Your task to perform on an android device: Go to notification settings Image 0: 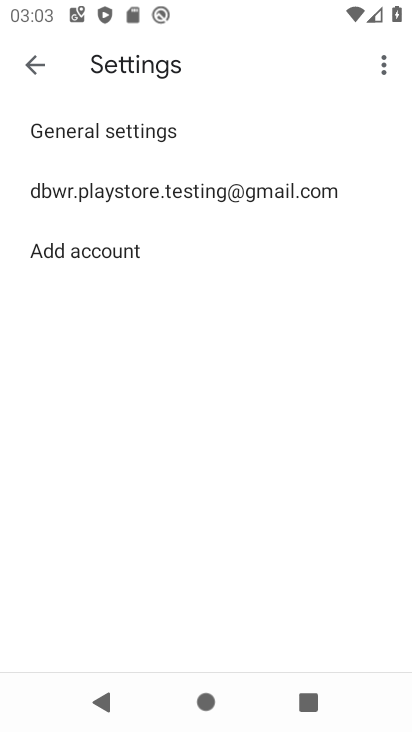
Step 0: press home button
Your task to perform on an android device: Go to notification settings Image 1: 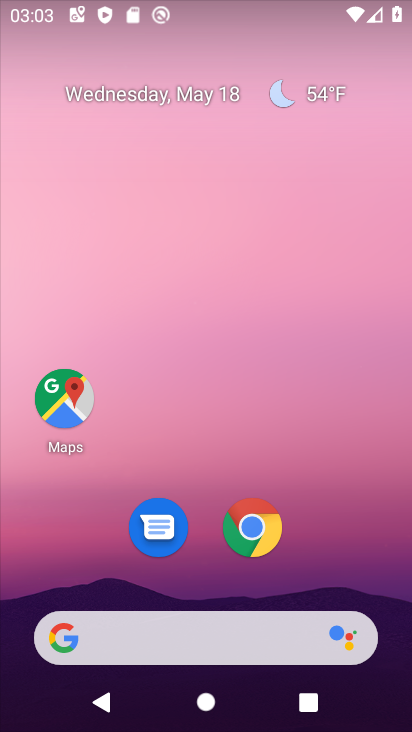
Step 1: drag from (216, 589) to (179, 0)
Your task to perform on an android device: Go to notification settings Image 2: 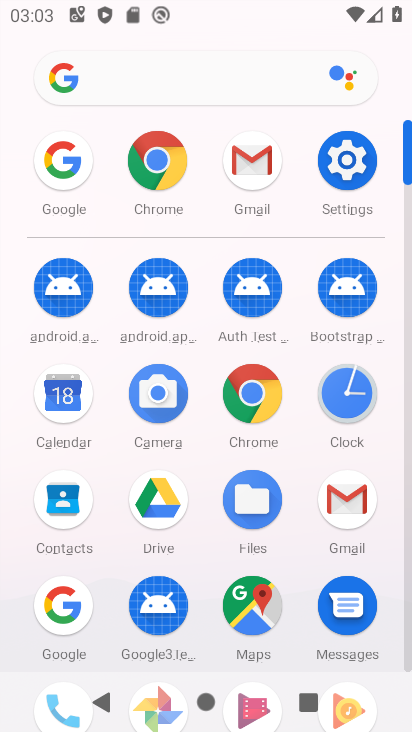
Step 2: click (361, 156)
Your task to perform on an android device: Go to notification settings Image 3: 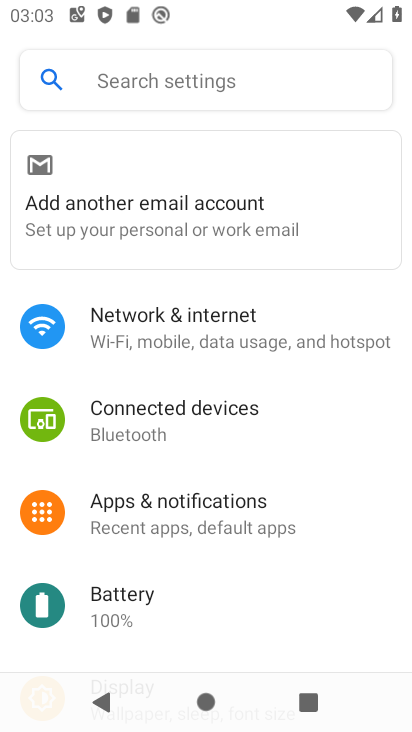
Step 3: click (186, 518)
Your task to perform on an android device: Go to notification settings Image 4: 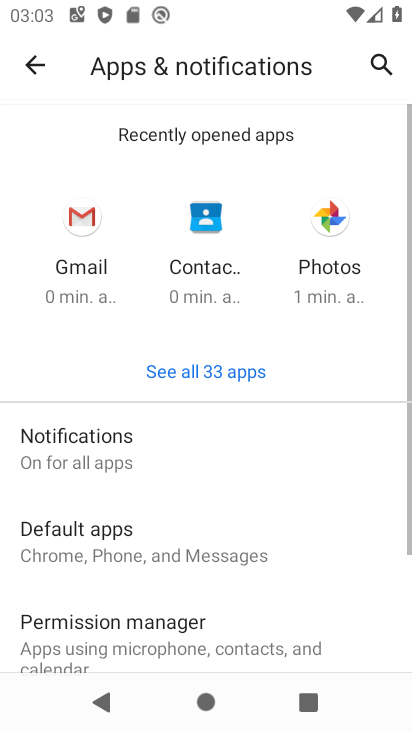
Step 4: click (162, 470)
Your task to perform on an android device: Go to notification settings Image 5: 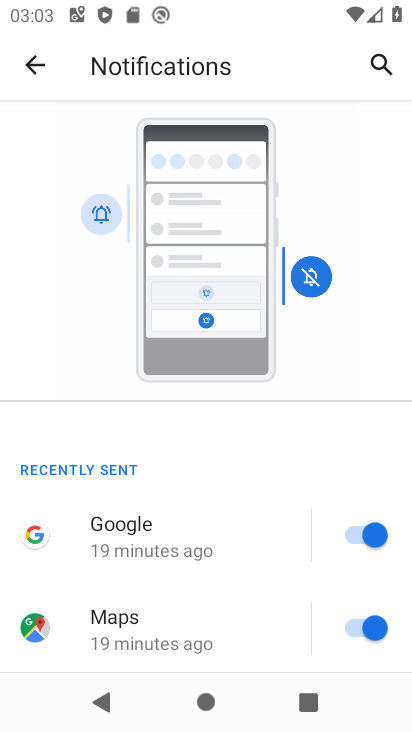
Step 5: task complete